Your task to perform on an android device: Add "sony triple a" to the cart on walmart, then select checkout. Image 0: 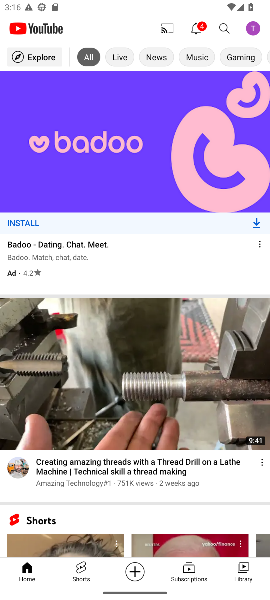
Step 0: press home button
Your task to perform on an android device: Add "sony triple a" to the cart on walmart, then select checkout. Image 1: 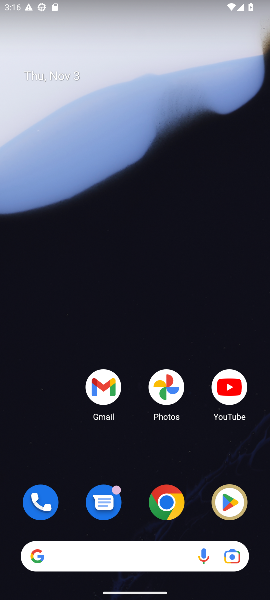
Step 1: drag from (124, 473) to (133, 118)
Your task to perform on an android device: Add "sony triple a" to the cart on walmart, then select checkout. Image 2: 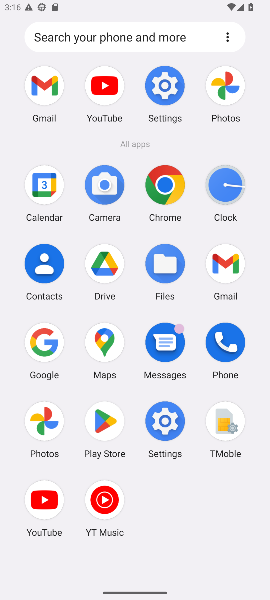
Step 2: click (44, 315)
Your task to perform on an android device: Add "sony triple a" to the cart on walmart, then select checkout. Image 3: 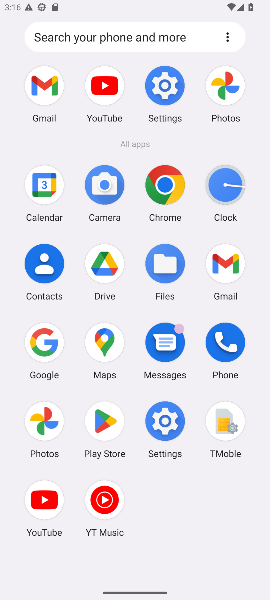
Step 3: click (50, 349)
Your task to perform on an android device: Add "sony triple a" to the cart on walmart, then select checkout. Image 4: 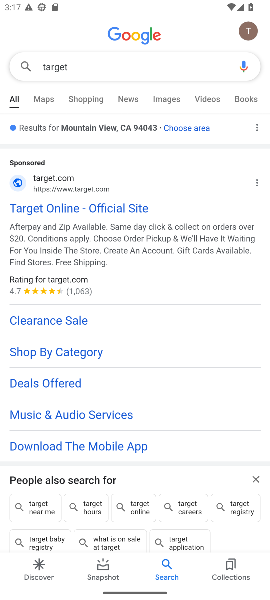
Step 4: click (172, 74)
Your task to perform on an android device: Add "sony triple a" to the cart on walmart, then select checkout. Image 5: 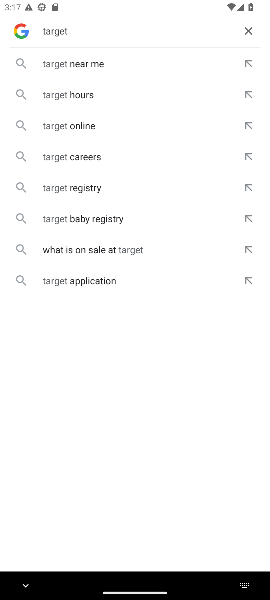
Step 5: click (249, 31)
Your task to perform on an android device: Add "sony triple a" to the cart on walmart, then select checkout. Image 6: 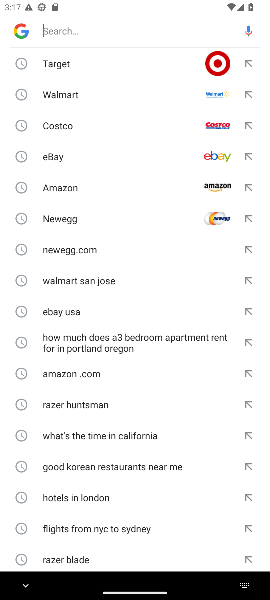
Step 6: type "walmart"
Your task to perform on an android device: Add "sony triple a" to the cart on walmart, then select checkout. Image 7: 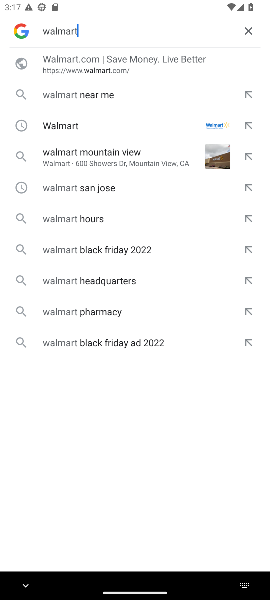
Step 7: click (133, 73)
Your task to perform on an android device: Add "sony triple a" to the cart on walmart, then select checkout. Image 8: 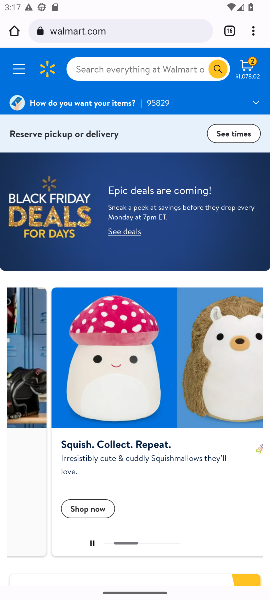
Step 8: click (102, 70)
Your task to perform on an android device: Add "sony triple a" to the cart on walmart, then select checkout. Image 9: 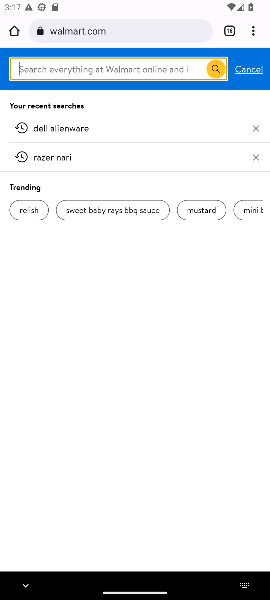
Step 9: type "sony triple a"
Your task to perform on an android device: Add "sony triple a" to the cart on walmart, then select checkout. Image 10: 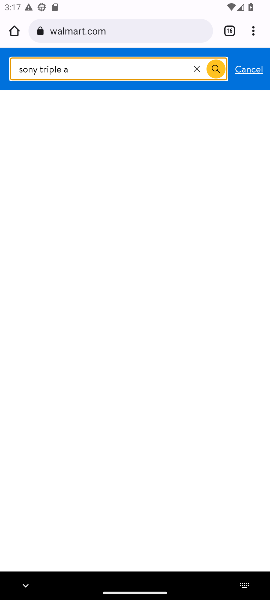
Step 10: click (218, 72)
Your task to perform on an android device: Add "sony triple a" to the cart on walmart, then select checkout. Image 11: 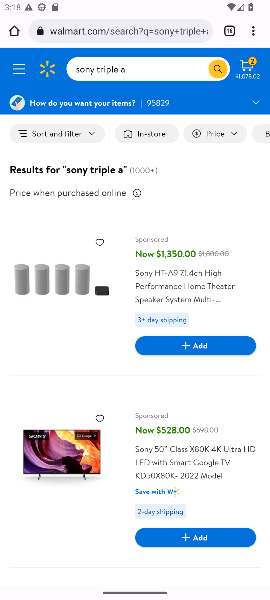
Step 11: click (210, 344)
Your task to perform on an android device: Add "sony triple a" to the cart on walmart, then select checkout. Image 12: 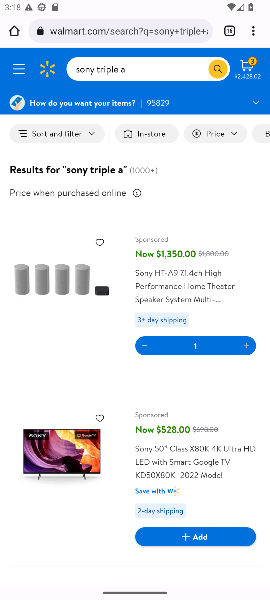
Step 12: click (250, 69)
Your task to perform on an android device: Add "sony triple a" to the cart on walmart, then select checkout. Image 13: 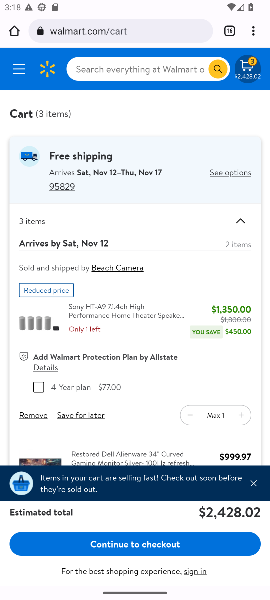
Step 13: click (165, 542)
Your task to perform on an android device: Add "sony triple a" to the cart on walmart, then select checkout. Image 14: 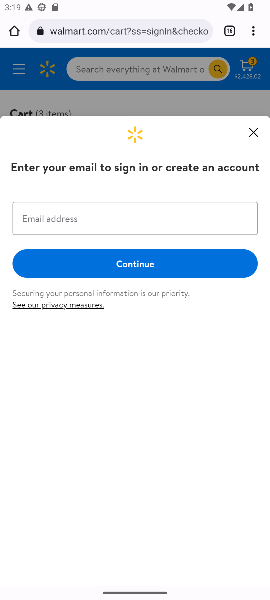
Step 14: task complete